Your task to perform on an android device: turn notification dots off Image 0: 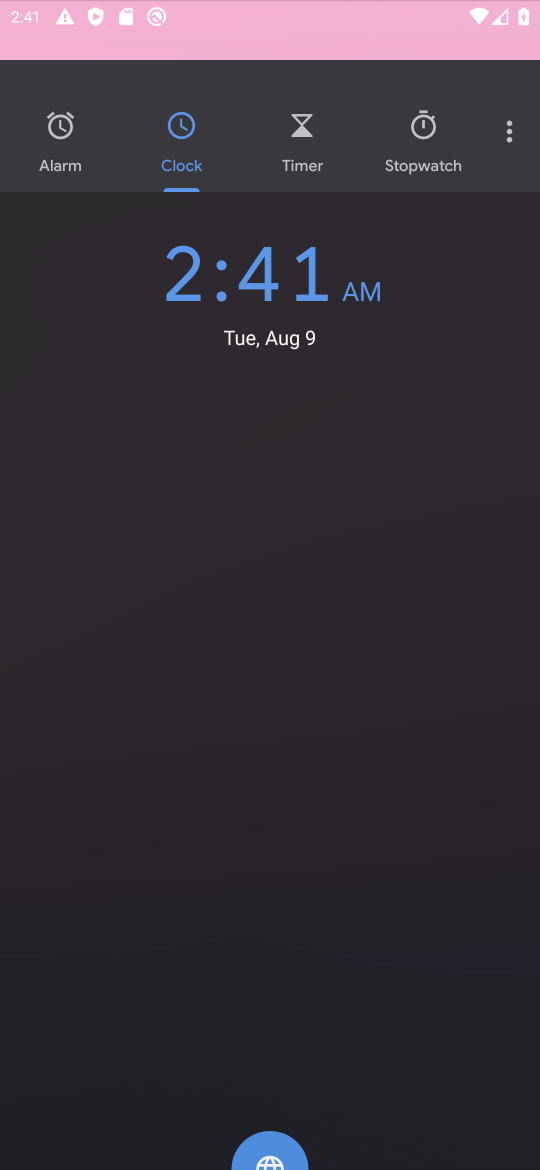
Step 0: drag from (327, 601) to (301, 33)
Your task to perform on an android device: turn notification dots off Image 1: 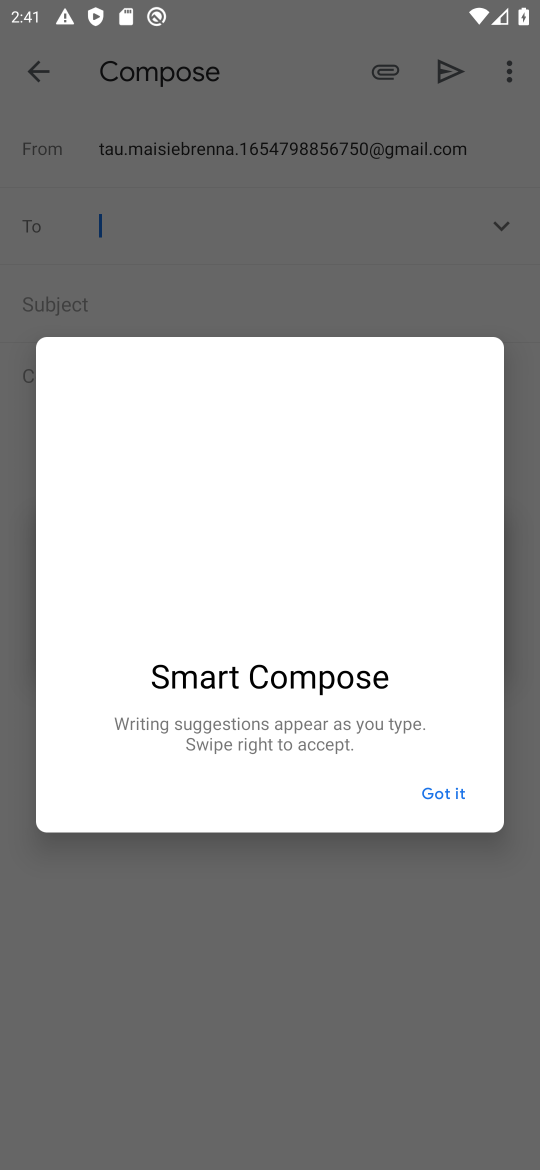
Step 1: press home button
Your task to perform on an android device: turn notification dots off Image 2: 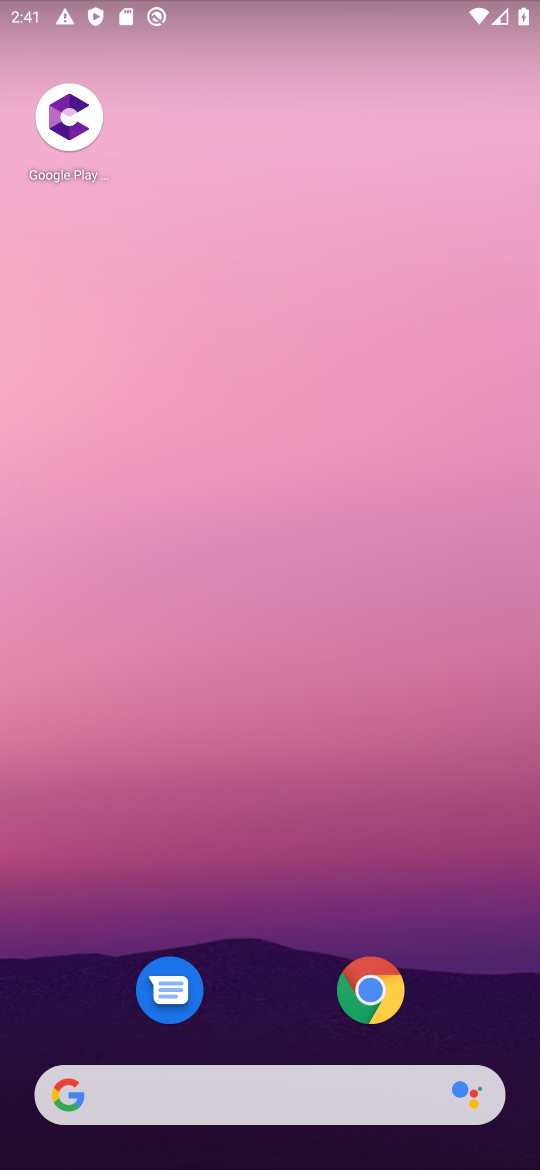
Step 2: drag from (281, 1088) to (297, 148)
Your task to perform on an android device: turn notification dots off Image 3: 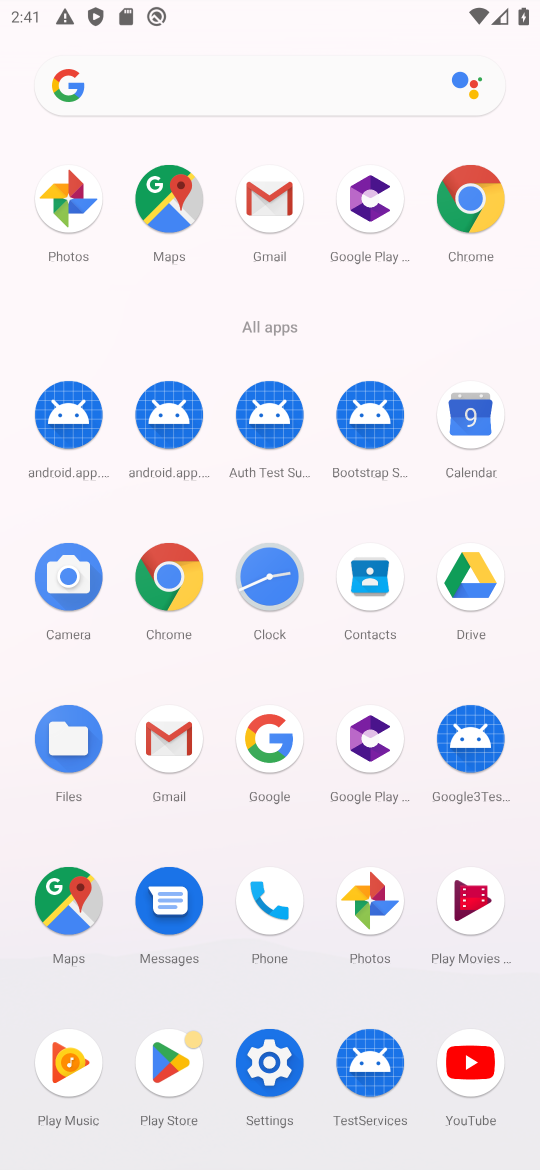
Step 3: click (282, 1044)
Your task to perform on an android device: turn notification dots off Image 4: 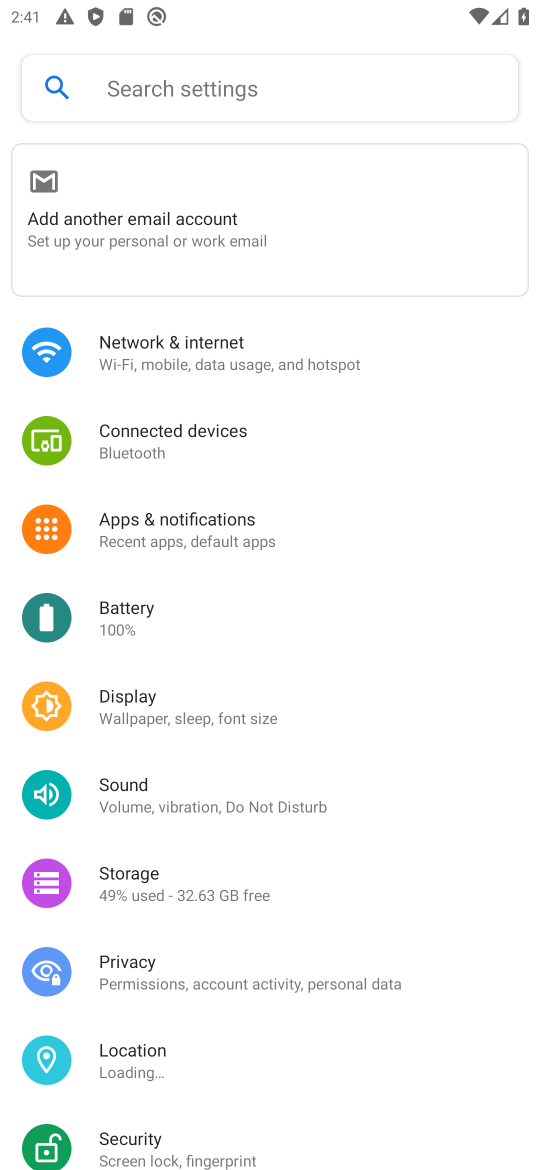
Step 4: click (203, 356)
Your task to perform on an android device: turn notification dots off Image 5: 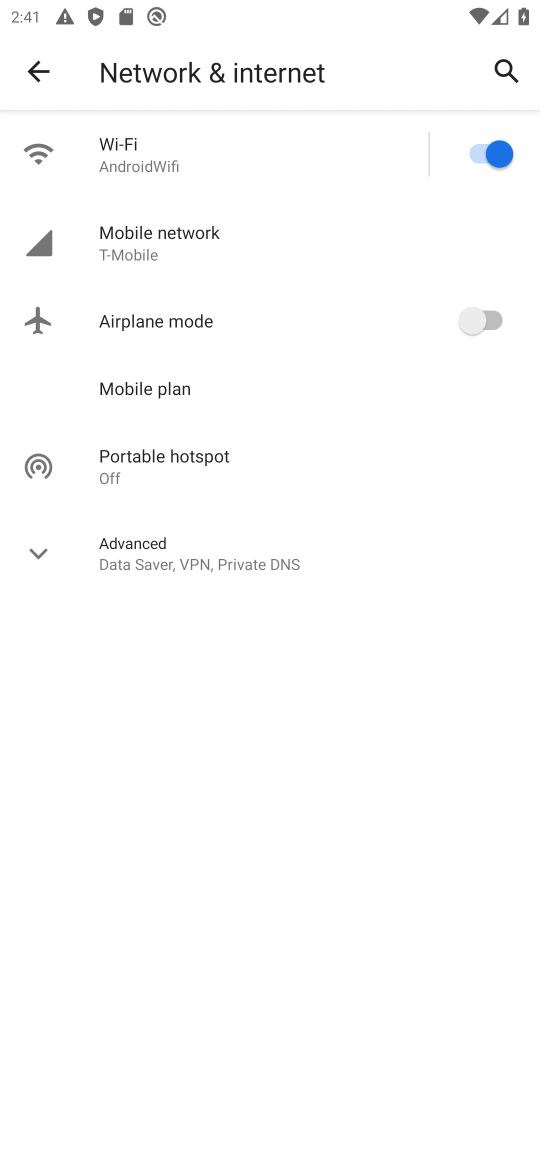
Step 5: press back button
Your task to perform on an android device: turn notification dots off Image 6: 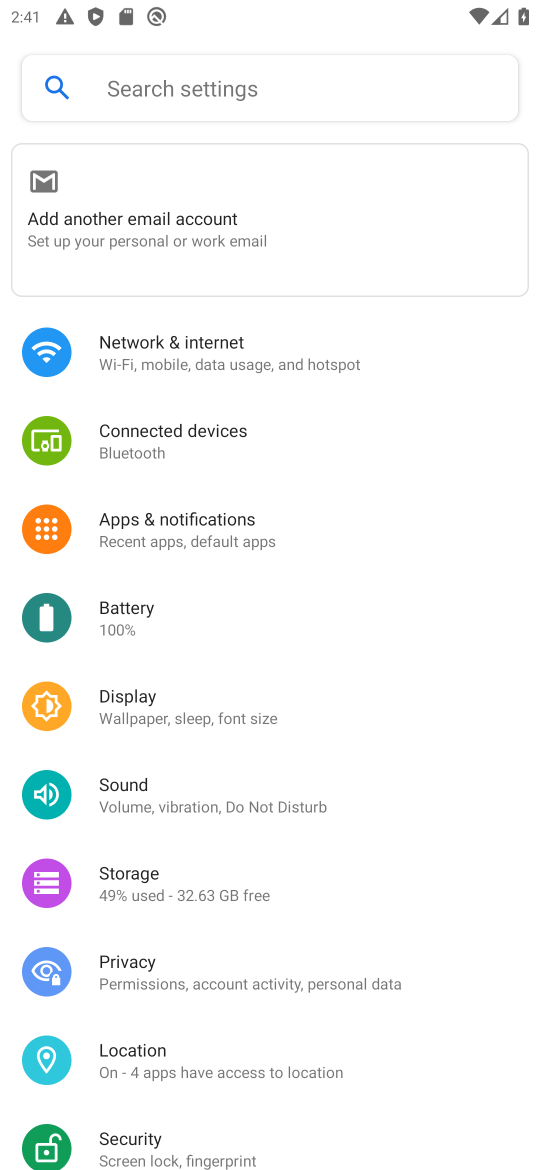
Step 6: click (224, 521)
Your task to perform on an android device: turn notification dots off Image 7: 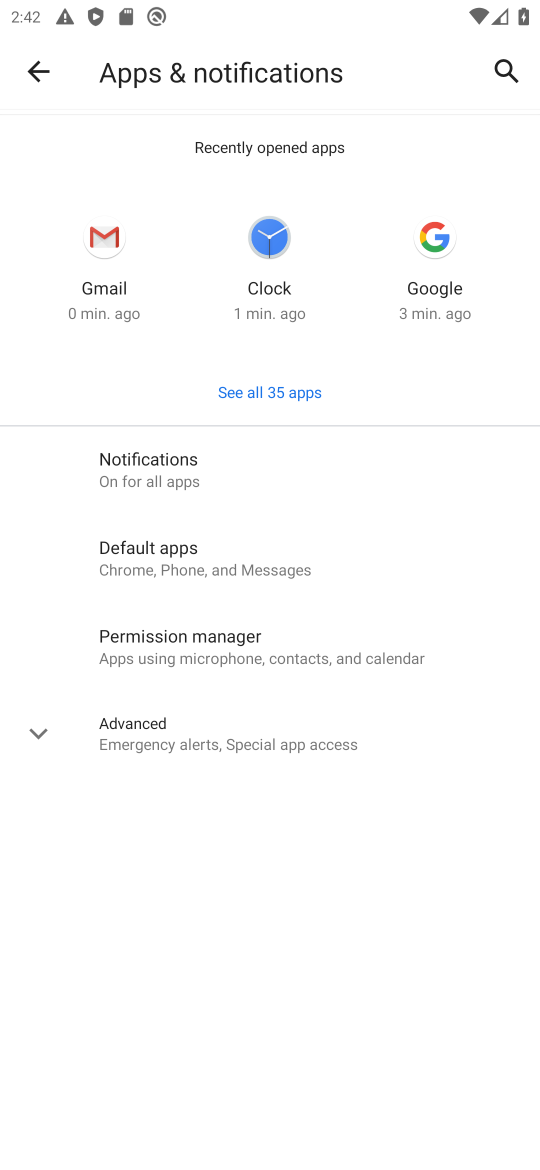
Step 7: click (151, 732)
Your task to perform on an android device: turn notification dots off Image 8: 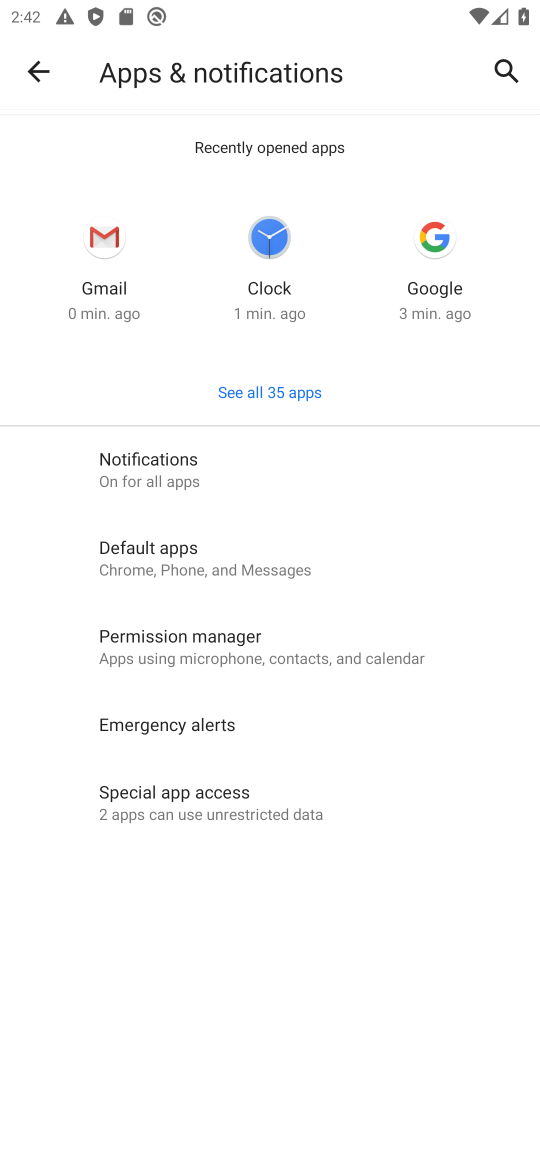
Step 8: click (177, 482)
Your task to perform on an android device: turn notification dots off Image 9: 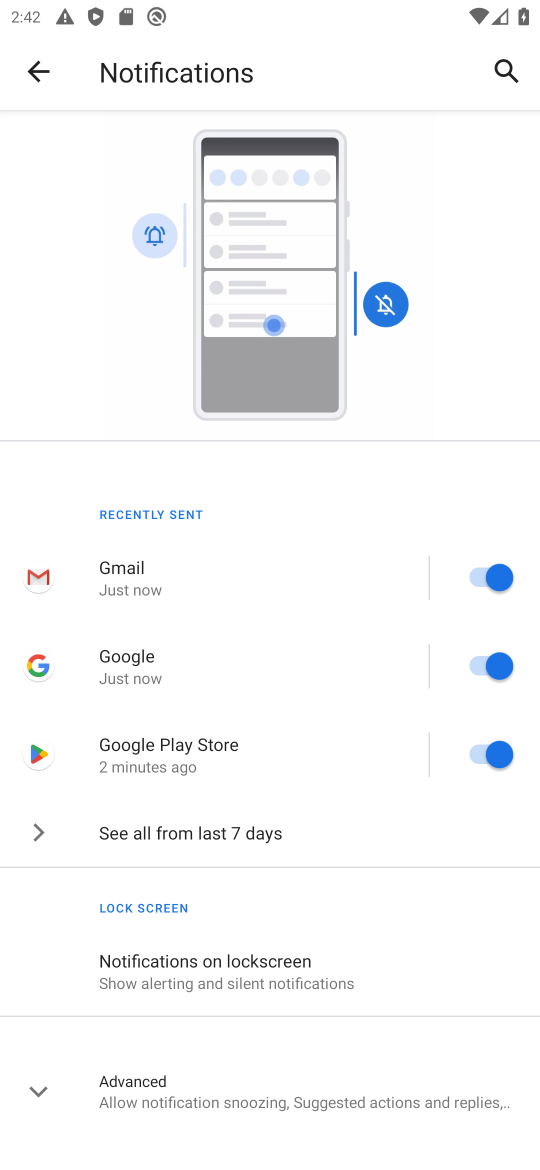
Step 9: click (175, 1090)
Your task to perform on an android device: turn notification dots off Image 10: 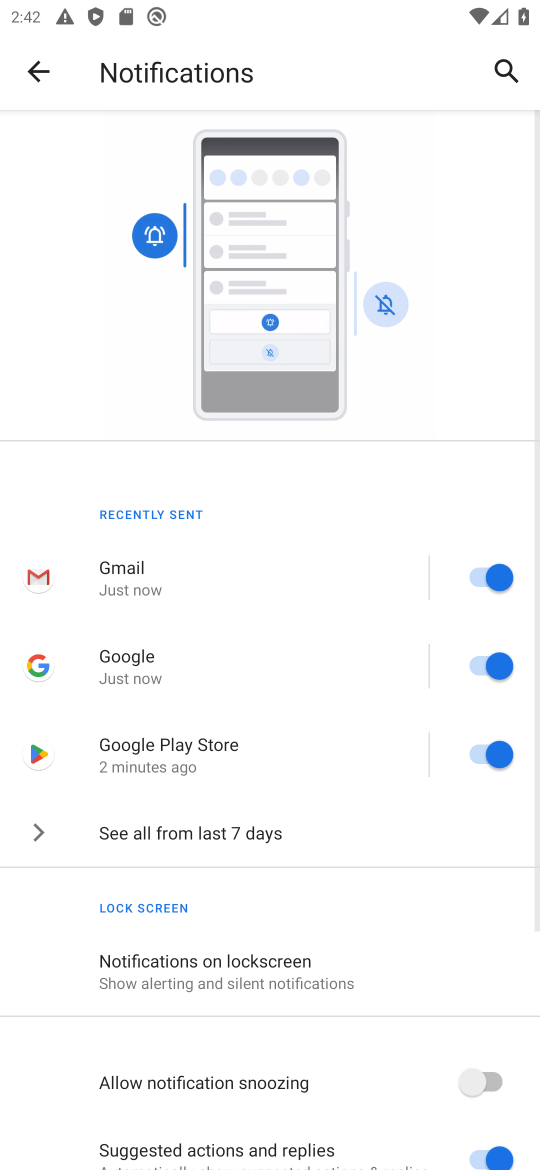
Step 10: drag from (386, 1044) to (384, 453)
Your task to perform on an android device: turn notification dots off Image 11: 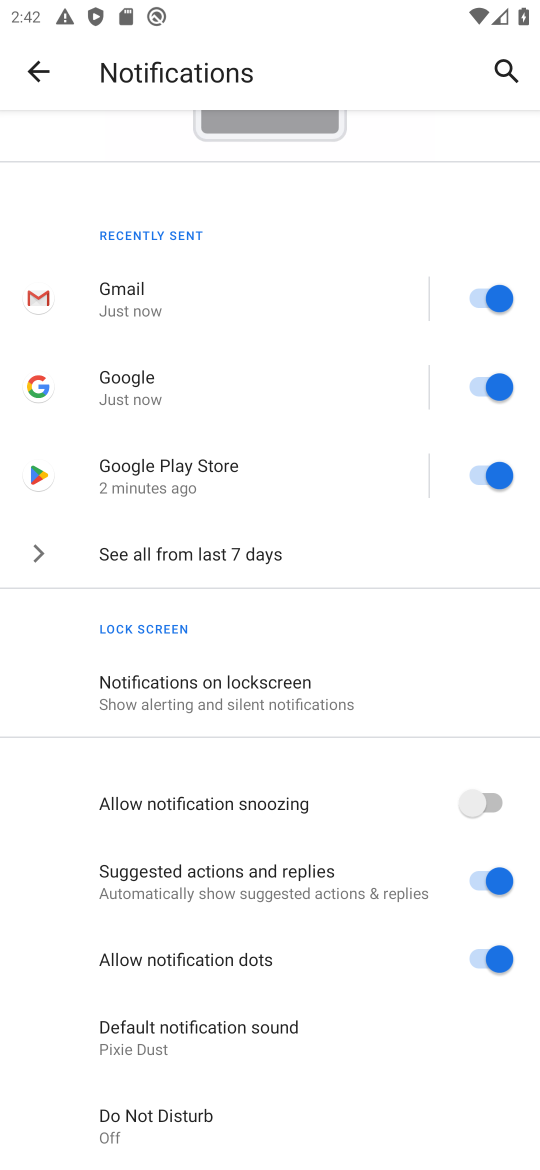
Step 11: click (487, 958)
Your task to perform on an android device: turn notification dots off Image 12: 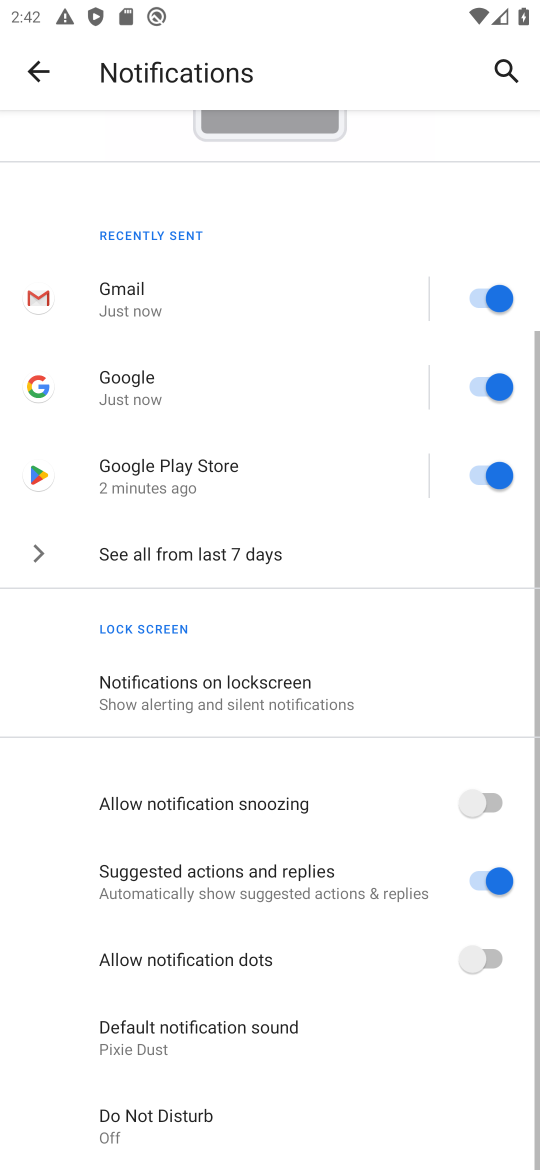
Step 12: task complete